Your task to perform on an android device: Install the Reddit app Image 0: 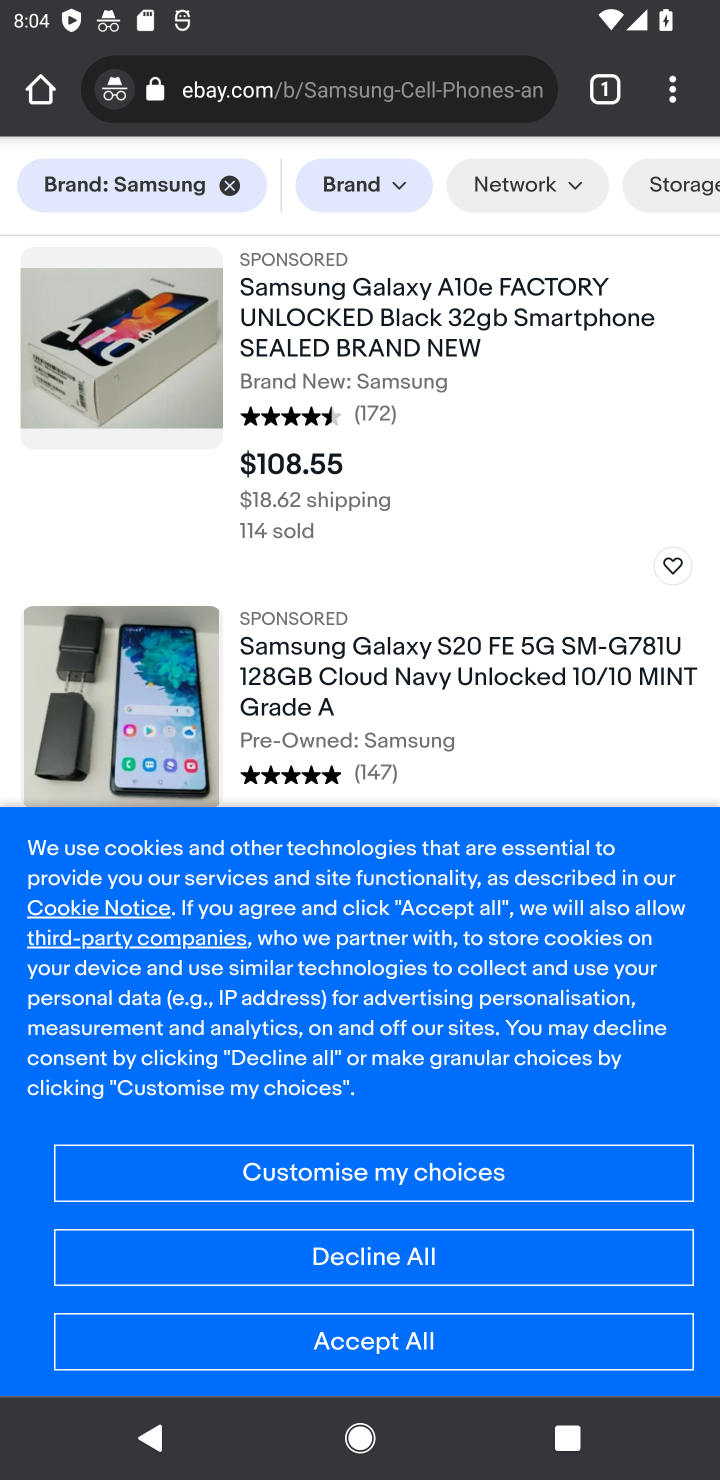
Step 0: press home button
Your task to perform on an android device: Install the Reddit app Image 1: 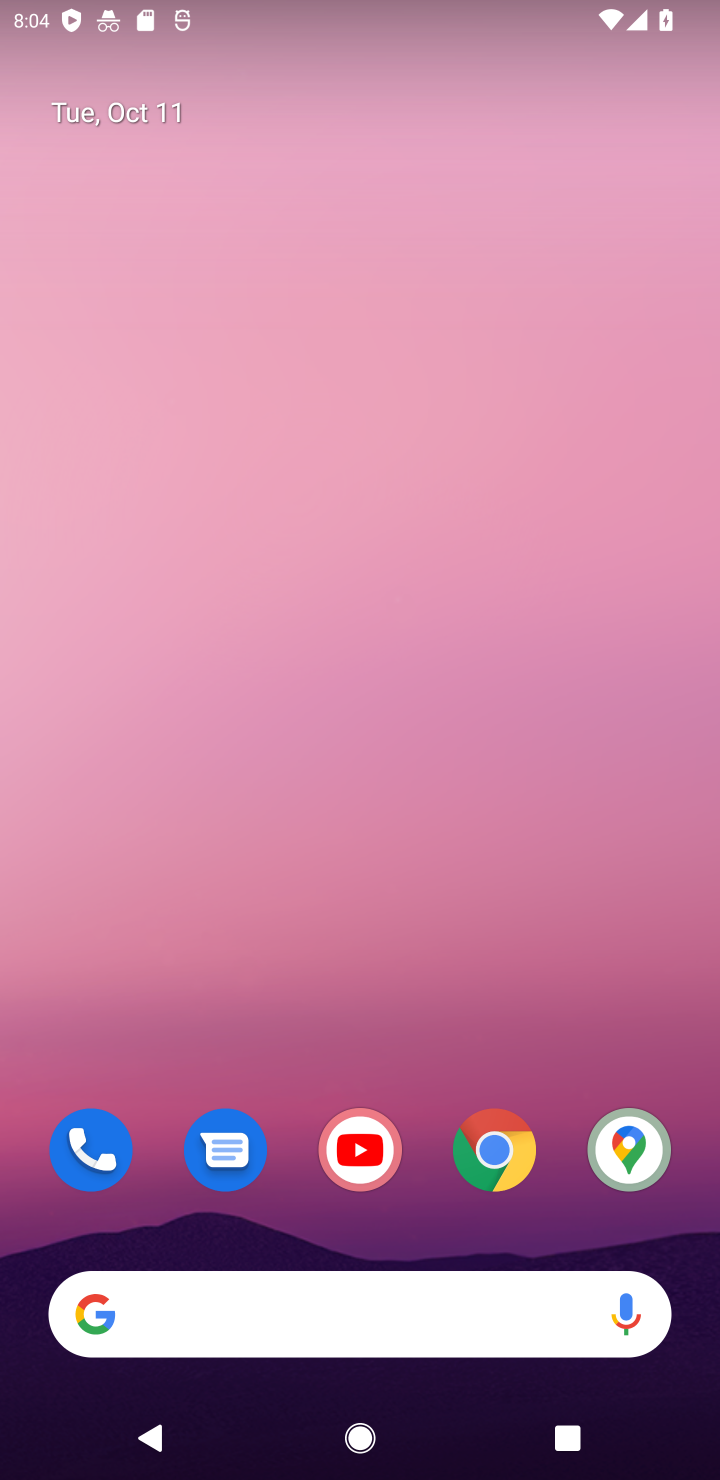
Step 1: drag from (441, 1107) to (423, 114)
Your task to perform on an android device: Install the Reddit app Image 2: 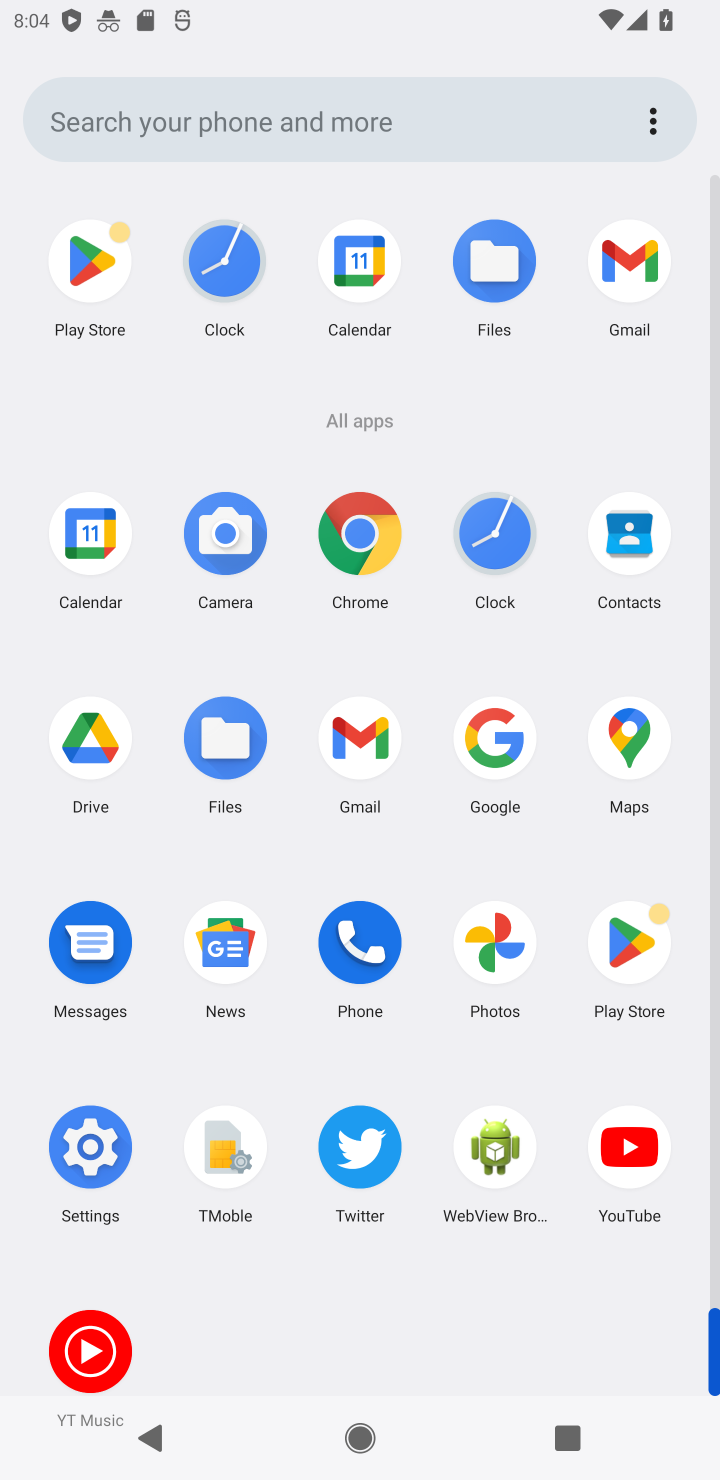
Step 2: click (635, 941)
Your task to perform on an android device: Install the Reddit app Image 3: 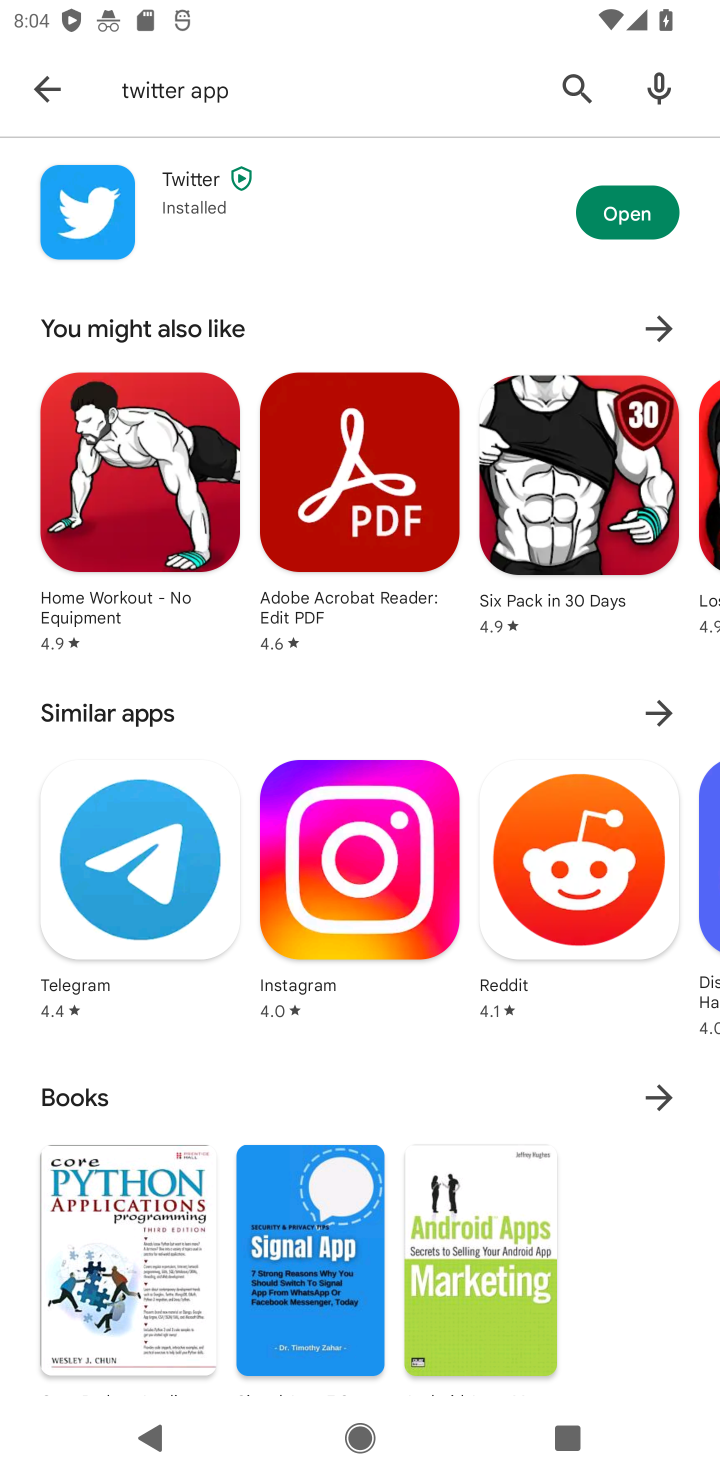
Step 3: click (246, 88)
Your task to perform on an android device: Install the Reddit app Image 4: 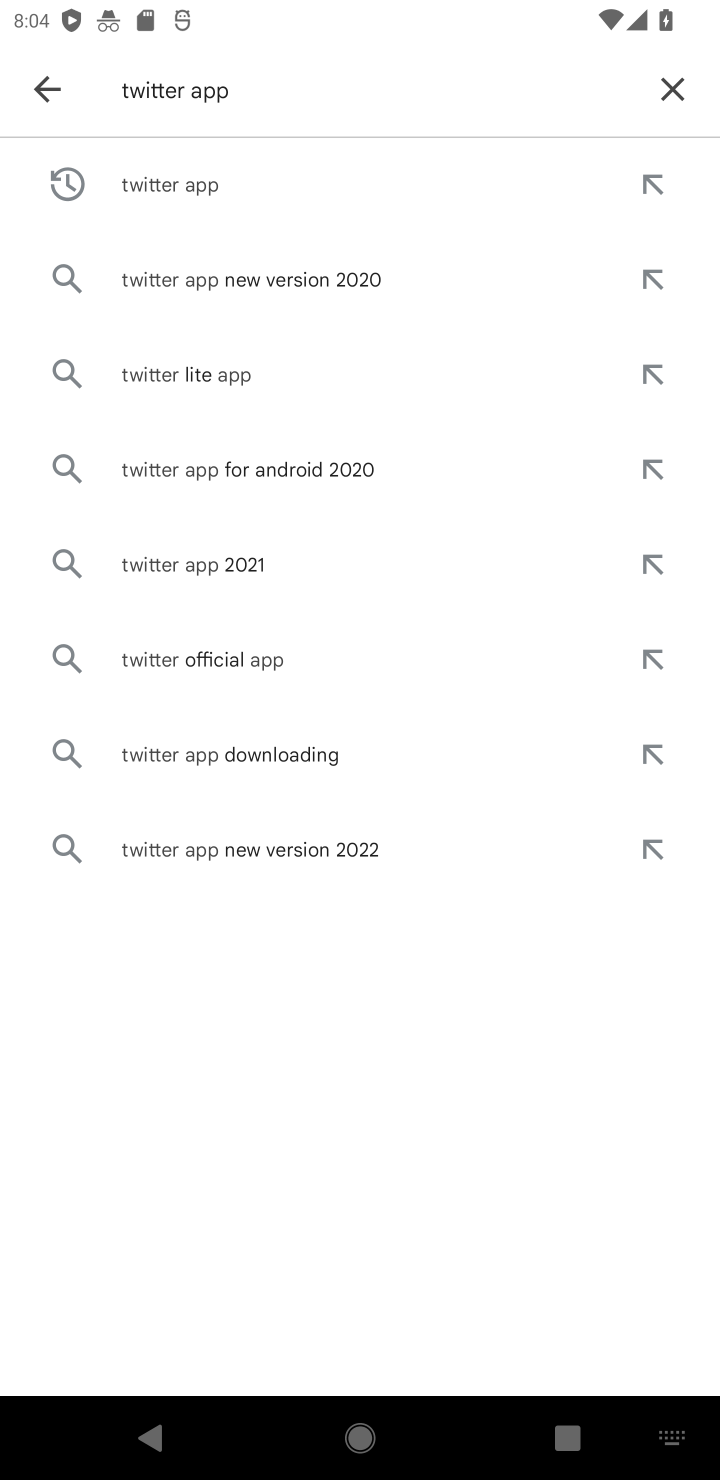
Step 4: click (680, 93)
Your task to perform on an android device: Install the Reddit app Image 5: 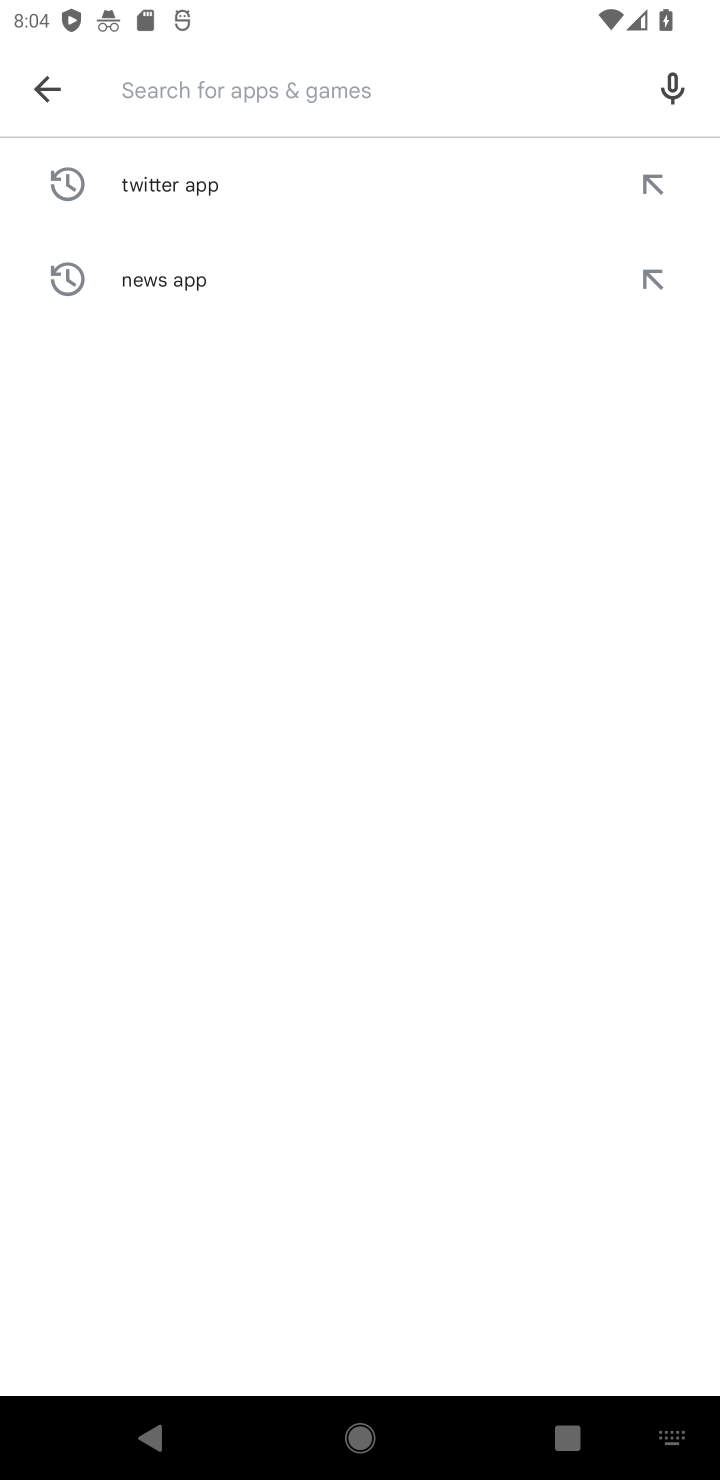
Step 5: type "reddit app"
Your task to perform on an android device: Install the Reddit app Image 6: 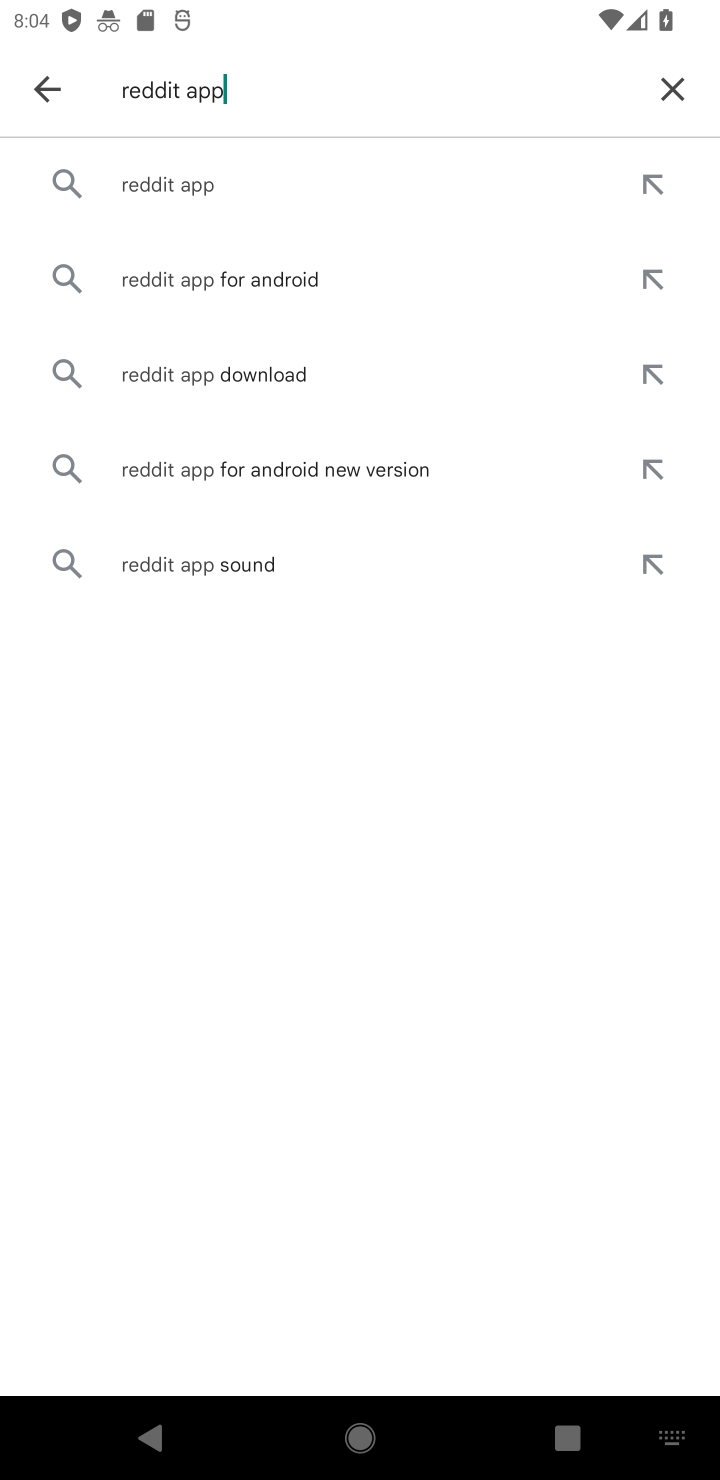
Step 6: click (133, 192)
Your task to perform on an android device: Install the Reddit app Image 7: 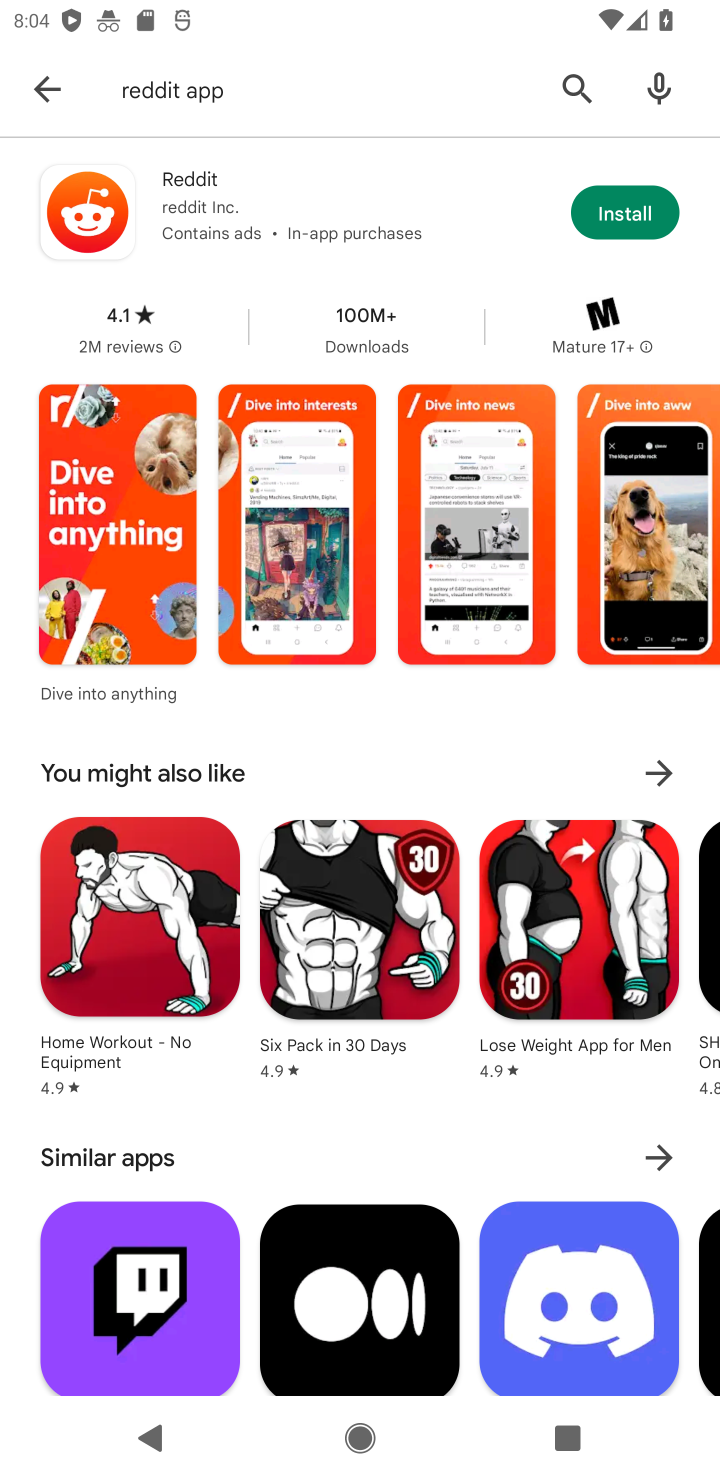
Step 7: click (614, 205)
Your task to perform on an android device: Install the Reddit app Image 8: 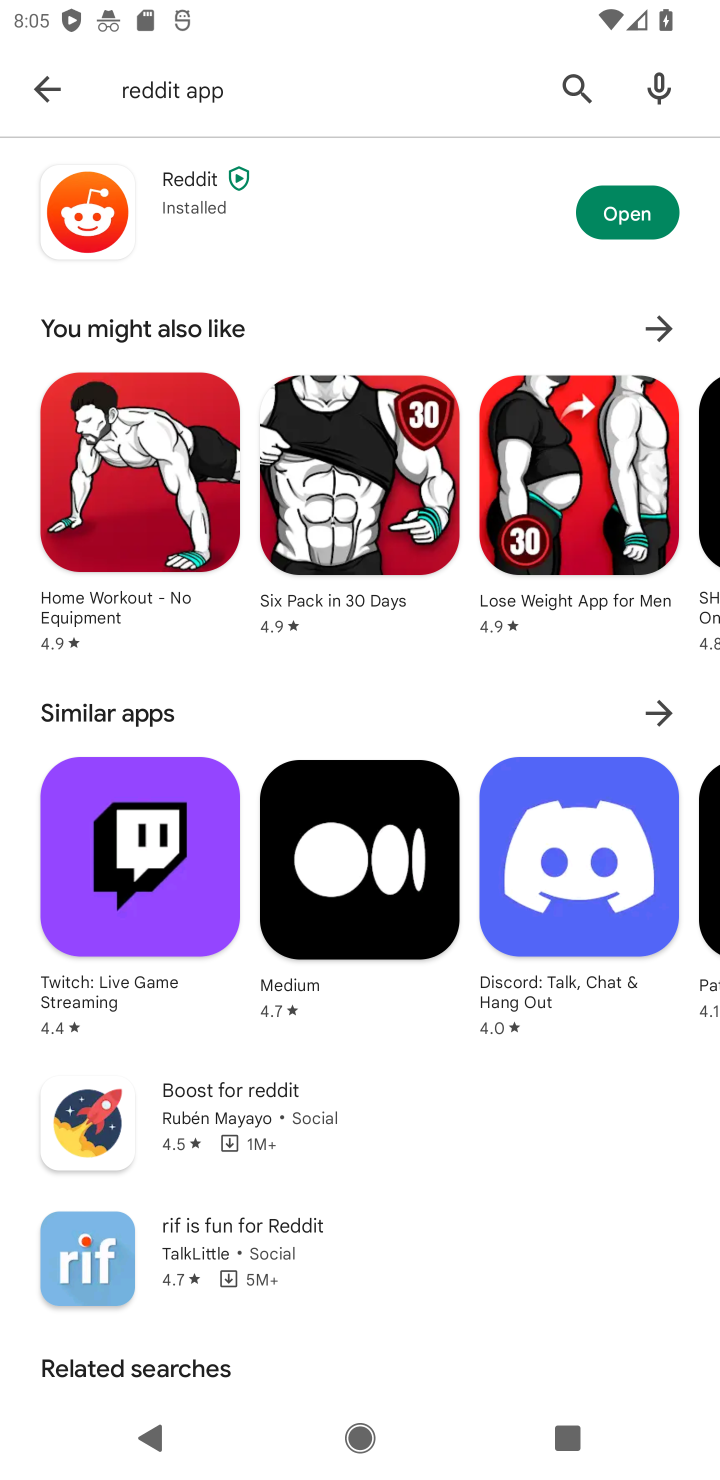
Step 8: task complete